Your task to perform on an android device: Do I have any events this weekend? Image 0: 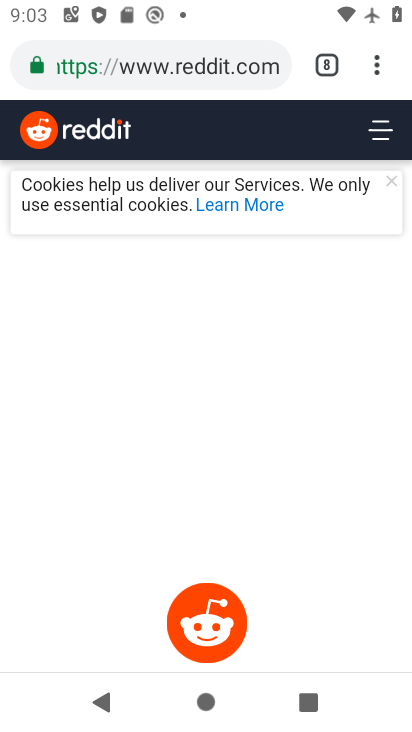
Step 0: press home button
Your task to perform on an android device: Do I have any events this weekend? Image 1: 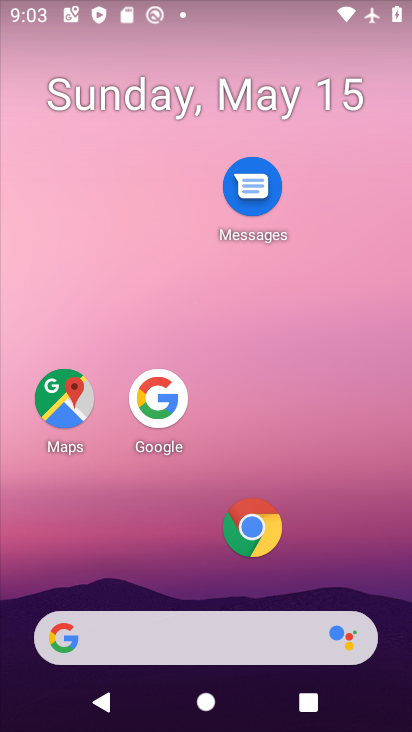
Step 1: drag from (136, 640) to (278, 192)
Your task to perform on an android device: Do I have any events this weekend? Image 2: 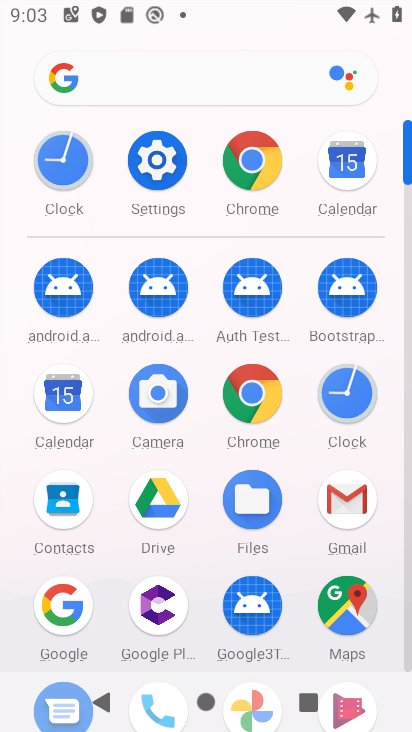
Step 2: click (62, 408)
Your task to perform on an android device: Do I have any events this weekend? Image 3: 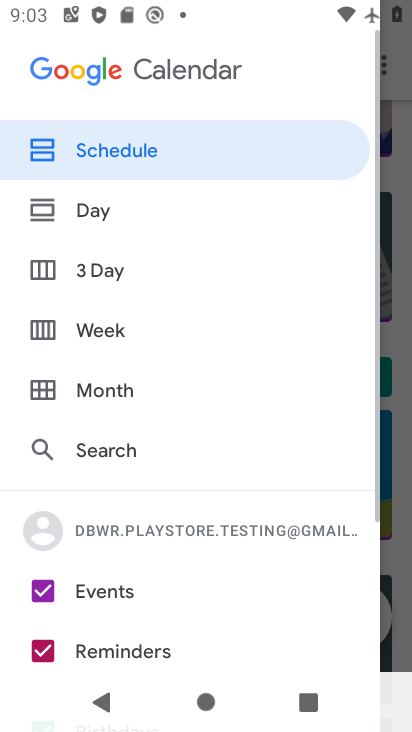
Step 3: click (100, 479)
Your task to perform on an android device: Do I have any events this weekend? Image 4: 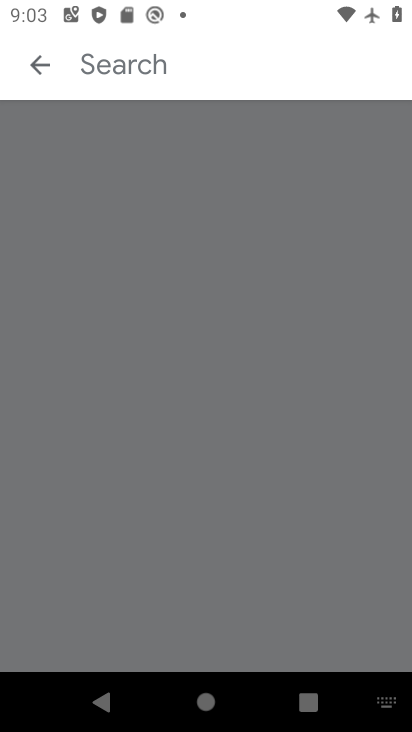
Step 4: click (33, 56)
Your task to perform on an android device: Do I have any events this weekend? Image 5: 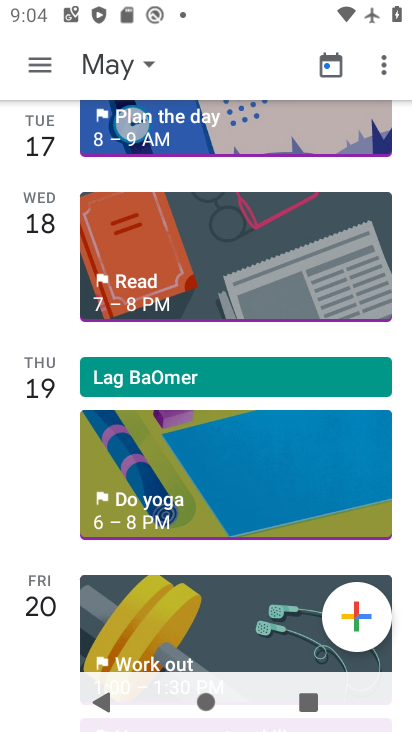
Step 5: click (113, 66)
Your task to perform on an android device: Do I have any events this weekend? Image 6: 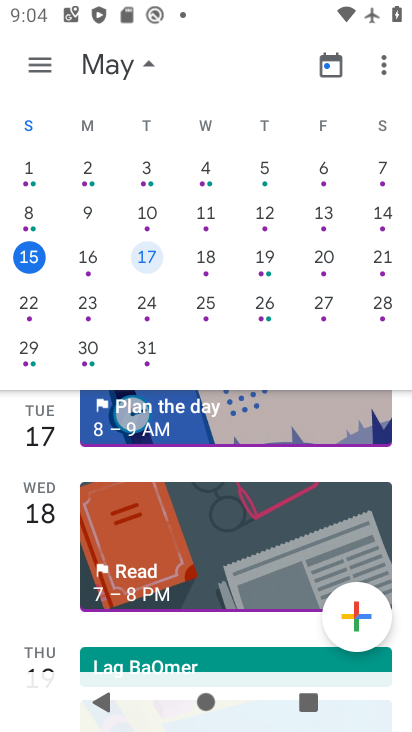
Step 6: click (383, 262)
Your task to perform on an android device: Do I have any events this weekend? Image 7: 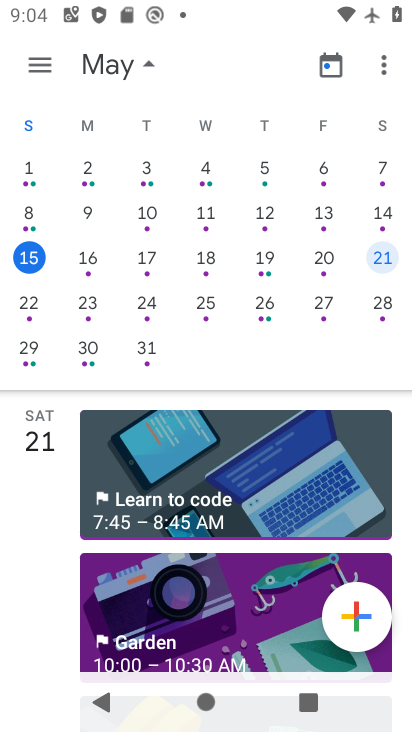
Step 7: click (33, 63)
Your task to perform on an android device: Do I have any events this weekend? Image 8: 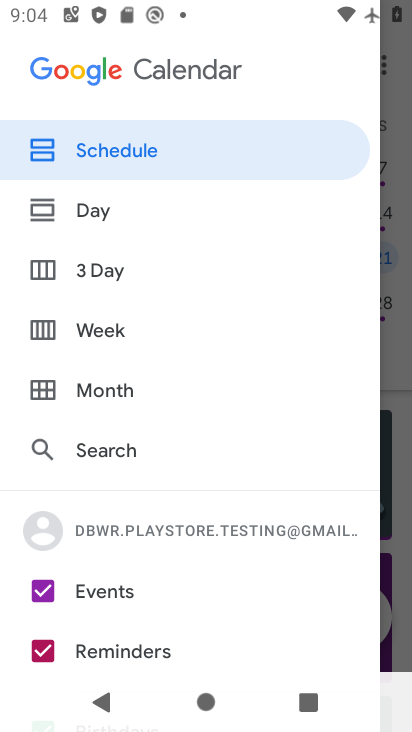
Step 8: click (96, 214)
Your task to perform on an android device: Do I have any events this weekend? Image 9: 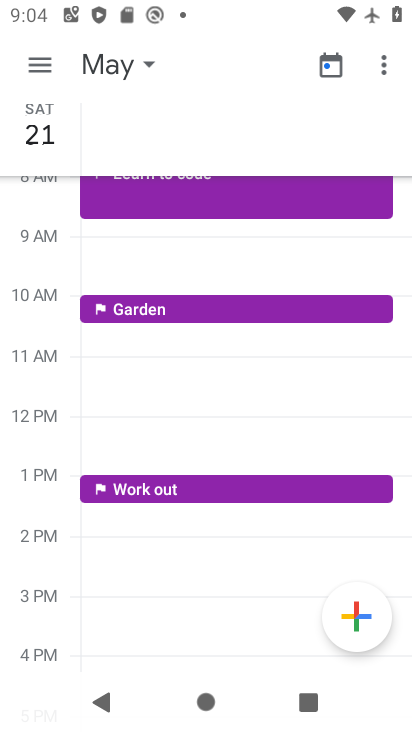
Step 9: click (36, 65)
Your task to perform on an android device: Do I have any events this weekend? Image 10: 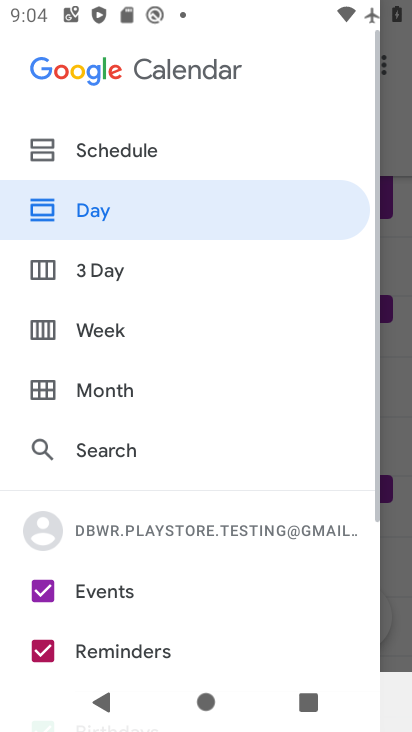
Step 10: click (114, 146)
Your task to perform on an android device: Do I have any events this weekend? Image 11: 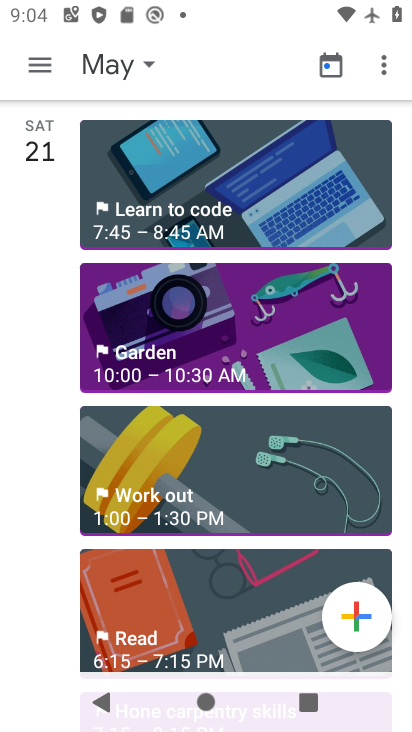
Step 11: click (170, 299)
Your task to perform on an android device: Do I have any events this weekend? Image 12: 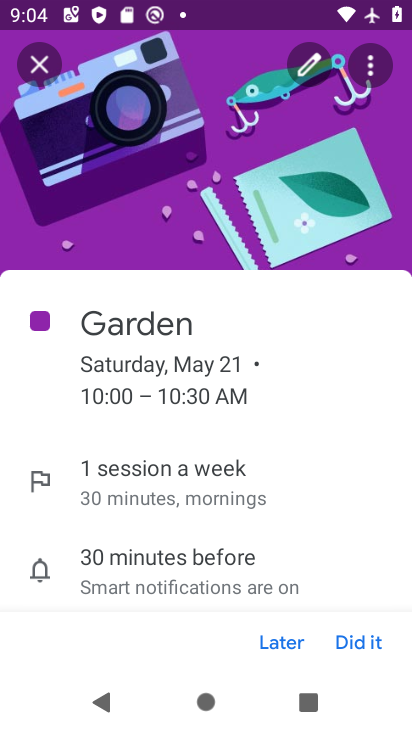
Step 12: task complete